Your task to perform on an android device: open app "Microsoft Outlook" (install if not already installed) Image 0: 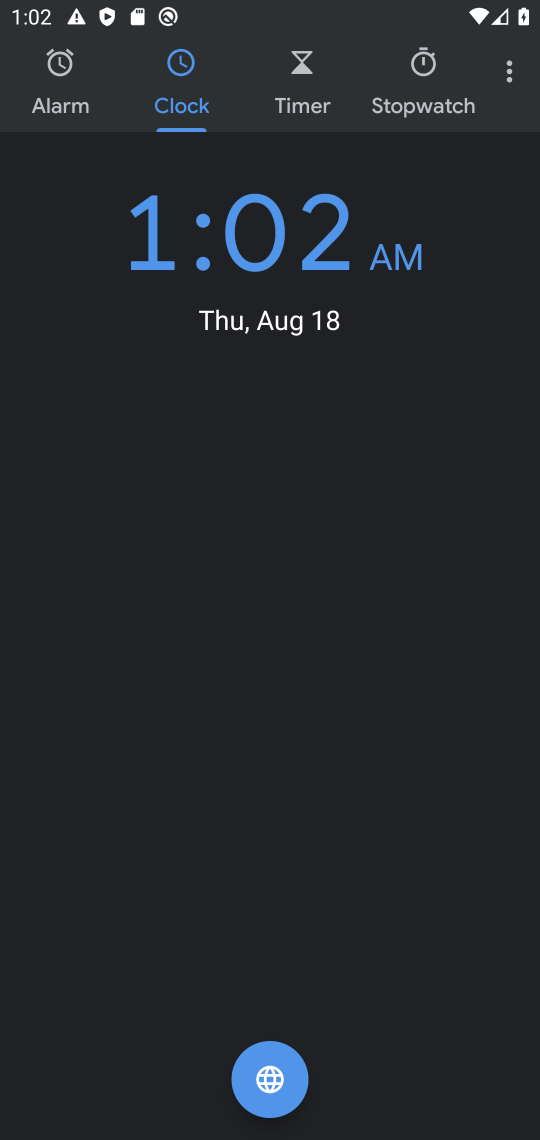
Step 0: press home button
Your task to perform on an android device: open app "Microsoft Outlook" (install if not already installed) Image 1: 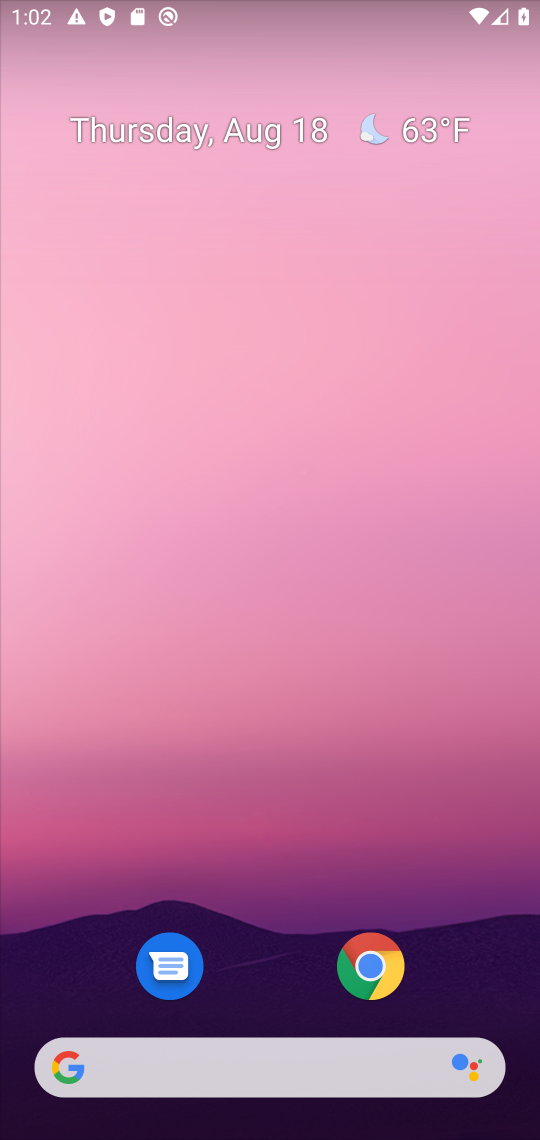
Step 1: drag from (269, 968) to (288, 169)
Your task to perform on an android device: open app "Microsoft Outlook" (install if not already installed) Image 2: 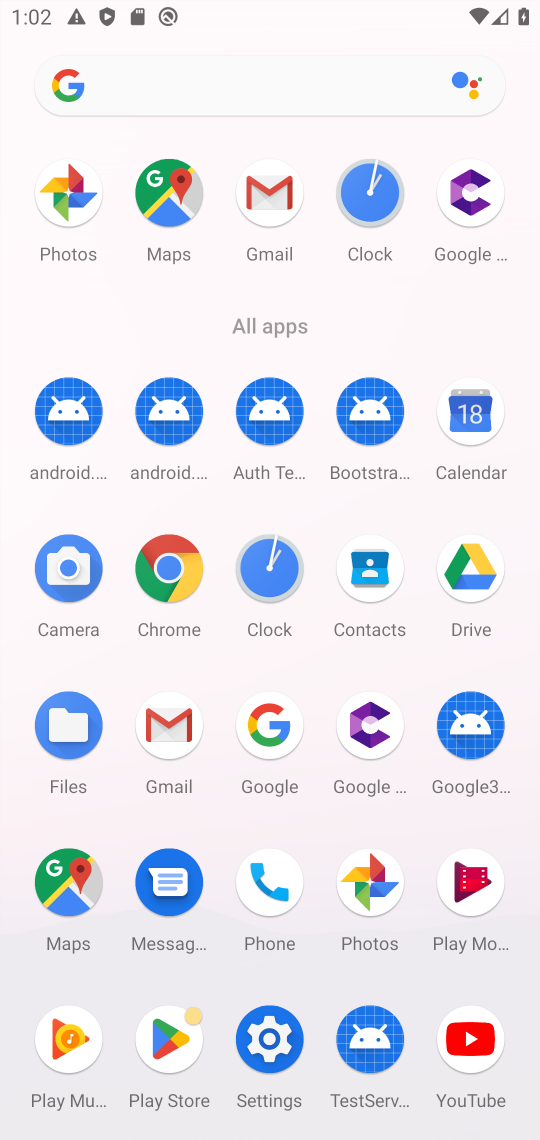
Step 2: click (164, 1027)
Your task to perform on an android device: open app "Microsoft Outlook" (install if not already installed) Image 3: 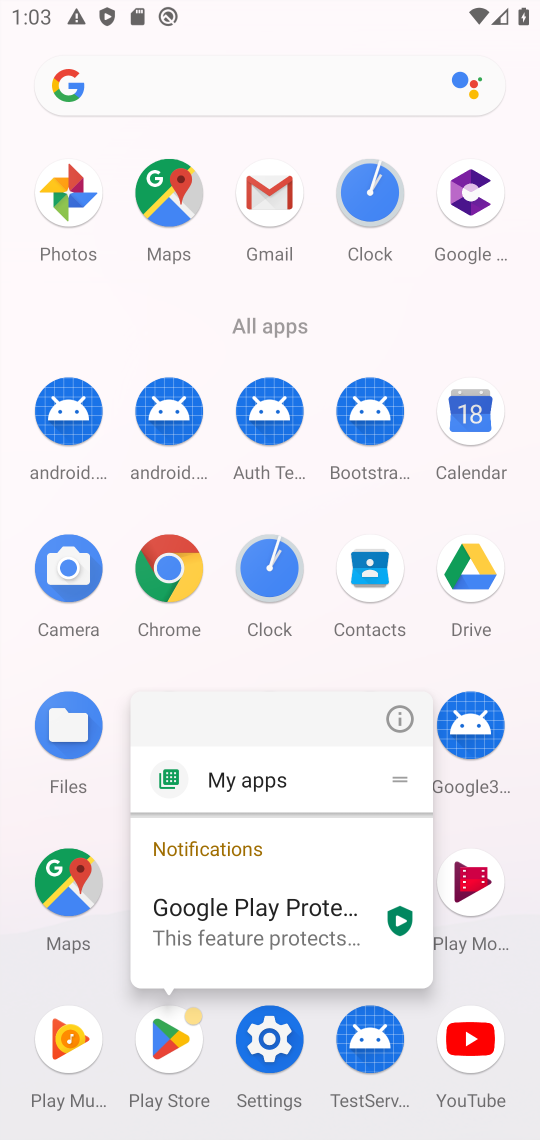
Step 3: click (162, 1041)
Your task to perform on an android device: open app "Microsoft Outlook" (install if not already installed) Image 4: 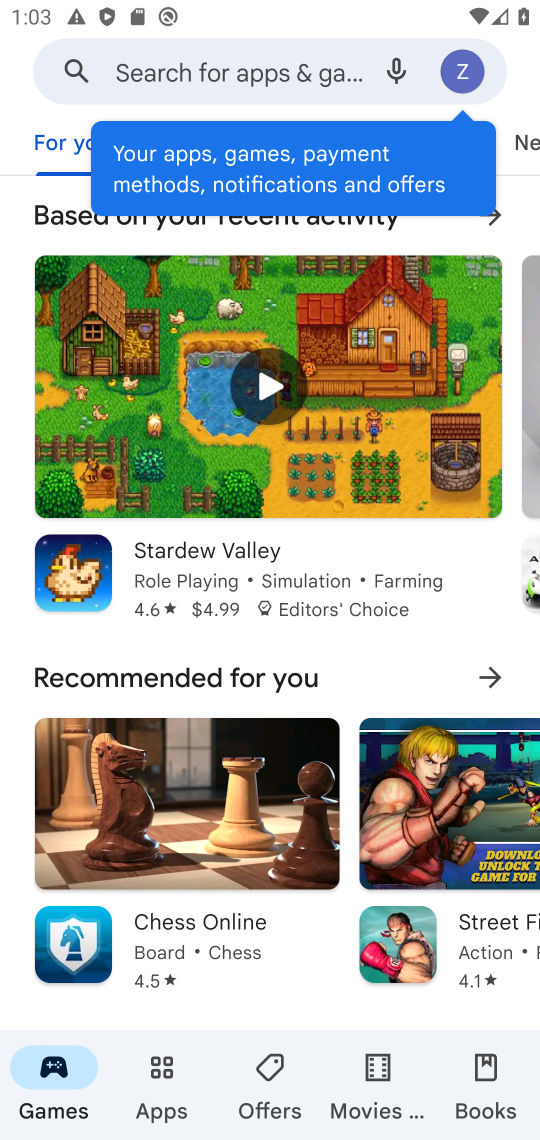
Step 4: click (148, 66)
Your task to perform on an android device: open app "Microsoft Outlook" (install if not already installed) Image 5: 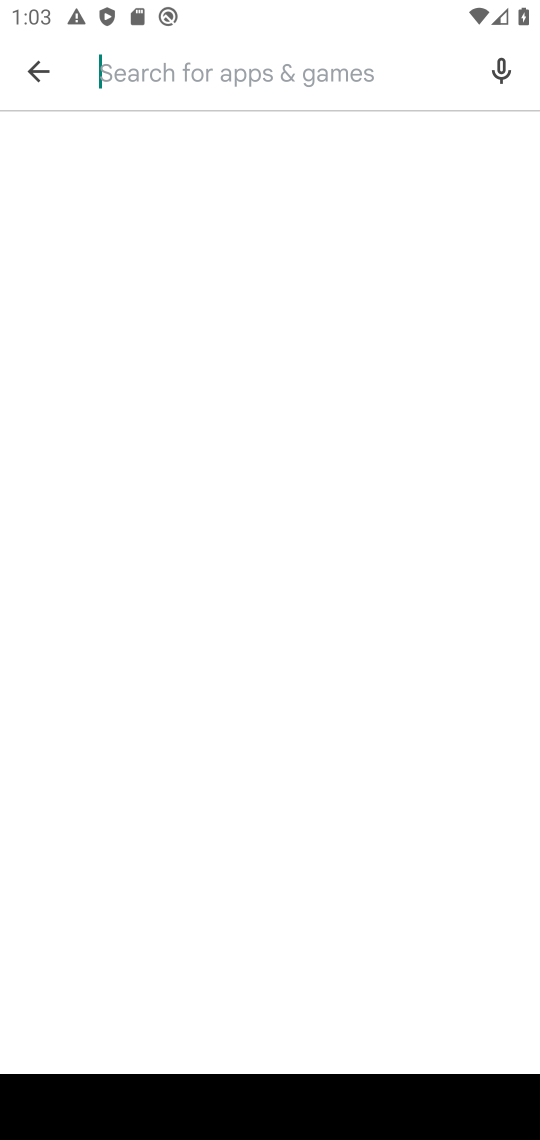
Step 5: type "Microsoft Outlook"
Your task to perform on an android device: open app "Microsoft Outlook" (install if not already installed) Image 6: 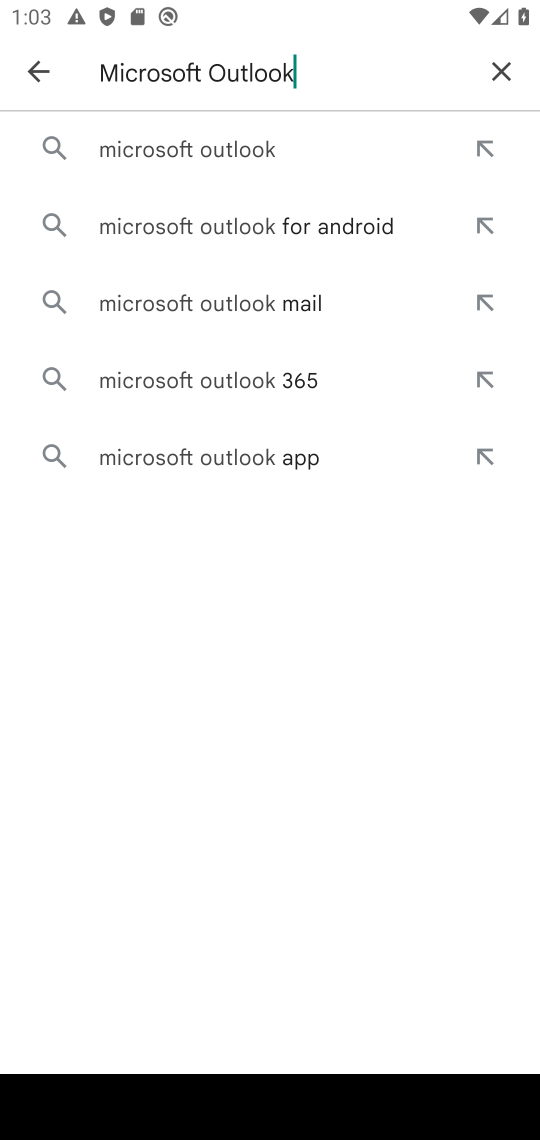
Step 6: click (249, 148)
Your task to perform on an android device: open app "Microsoft Outlook" (install if not already installed) Image 7: 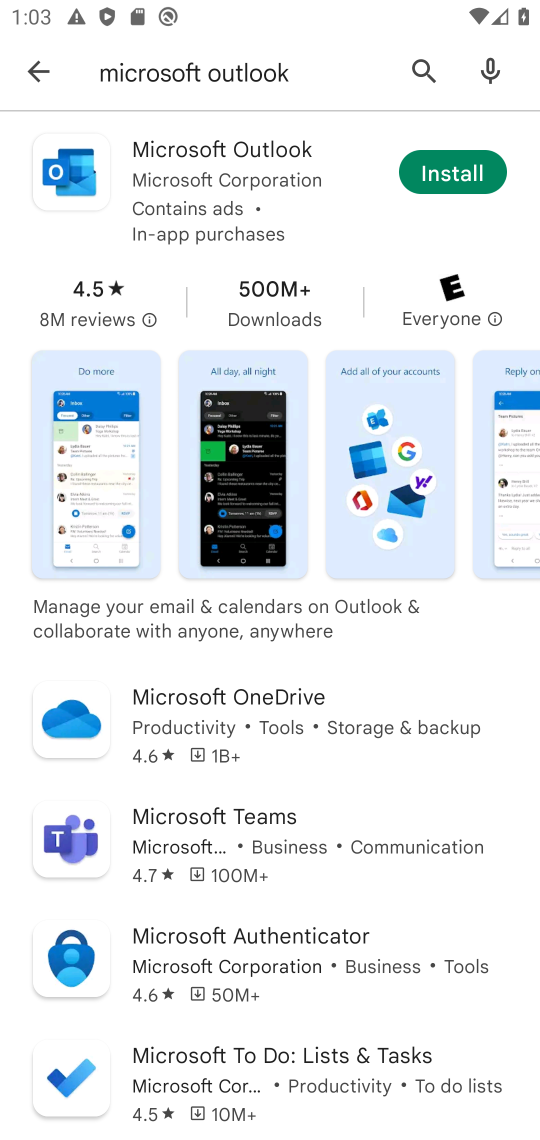
Step 7: click (453, 165)
Your task to perform on an android device: open app "Microsoft Outlook" (install if not already installed) Image 8: 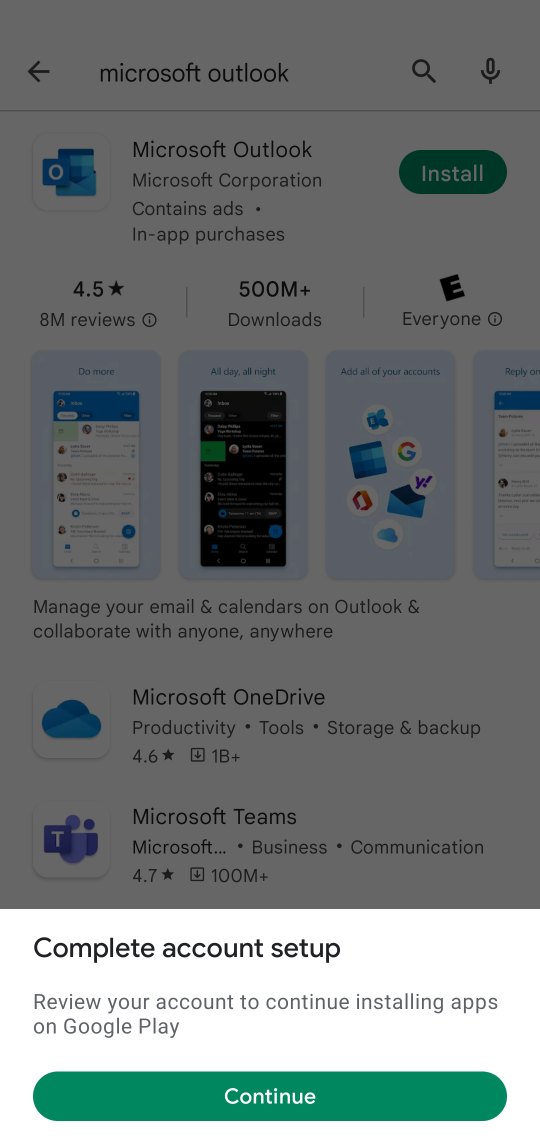
Step 8: click (277, 1105)
Your task to perform on an android device: open app "Microsoft Outlook" (install if not already installed) Image 9: 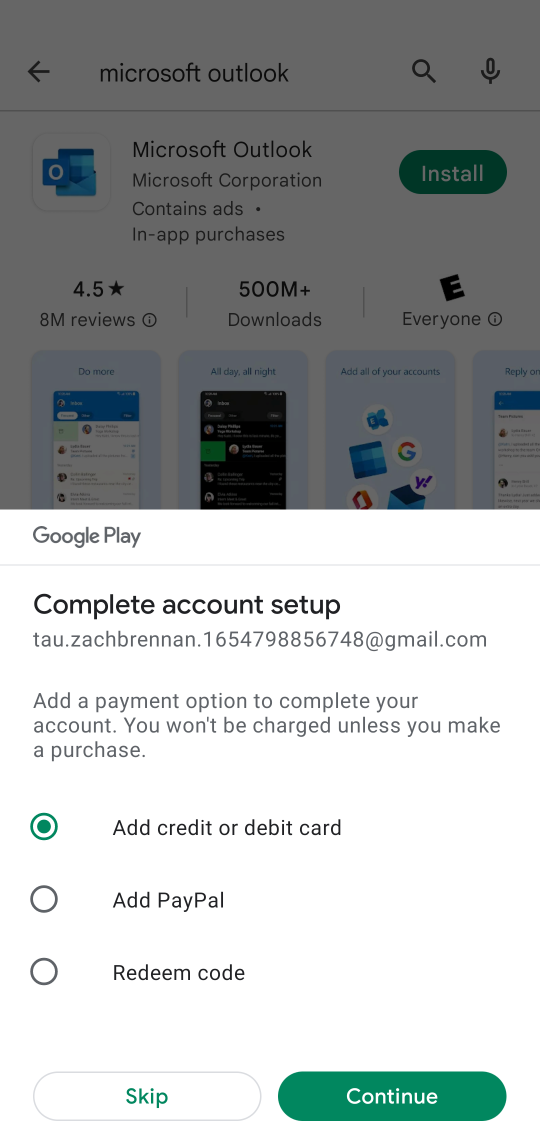
Step 9: click (149, 1097)
Your task to perform on an android device: open app "Microsoft Outlook" (install if not already installed) Image 10: 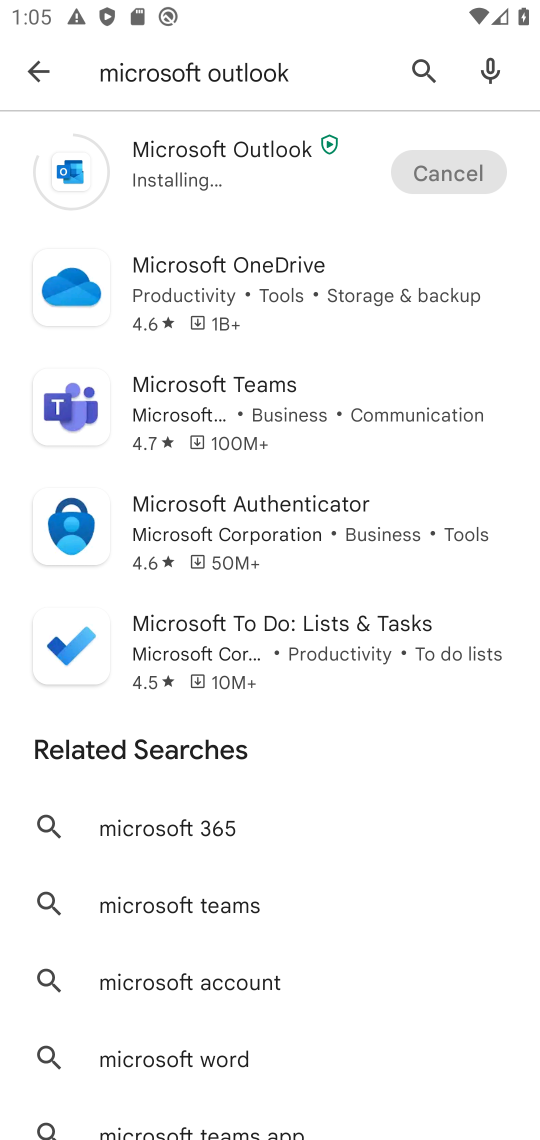
Step 10: click (227, 168)
Your task to perform on an android device: open app "Microsoft Outlook" (install if not already installed) Image 11: 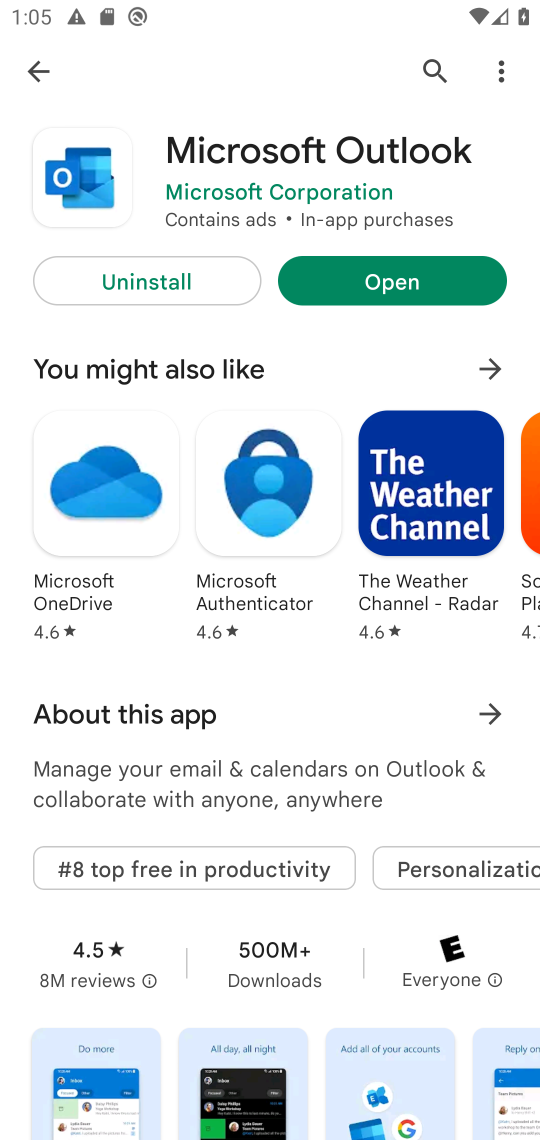
Step 11: click (392, 279)
Your task to perform on an android device: open app "Microsoft Outlook" (install if not already installed) Image 12: 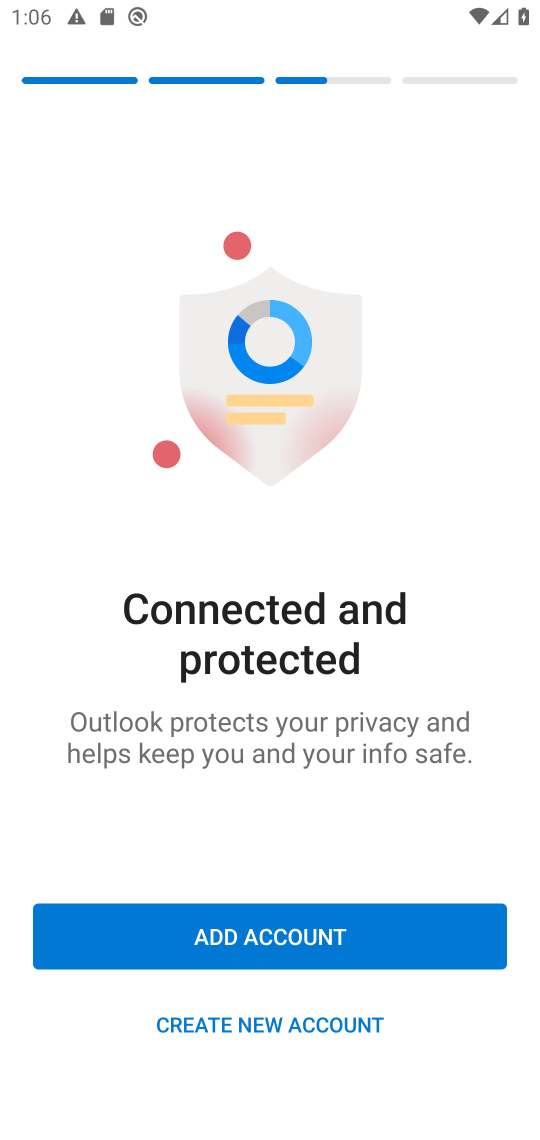
Step 12: click (263, 948)
Your task to perform on an android device: open app "Microsoft Outlook" (install if not already installed) Image 13: 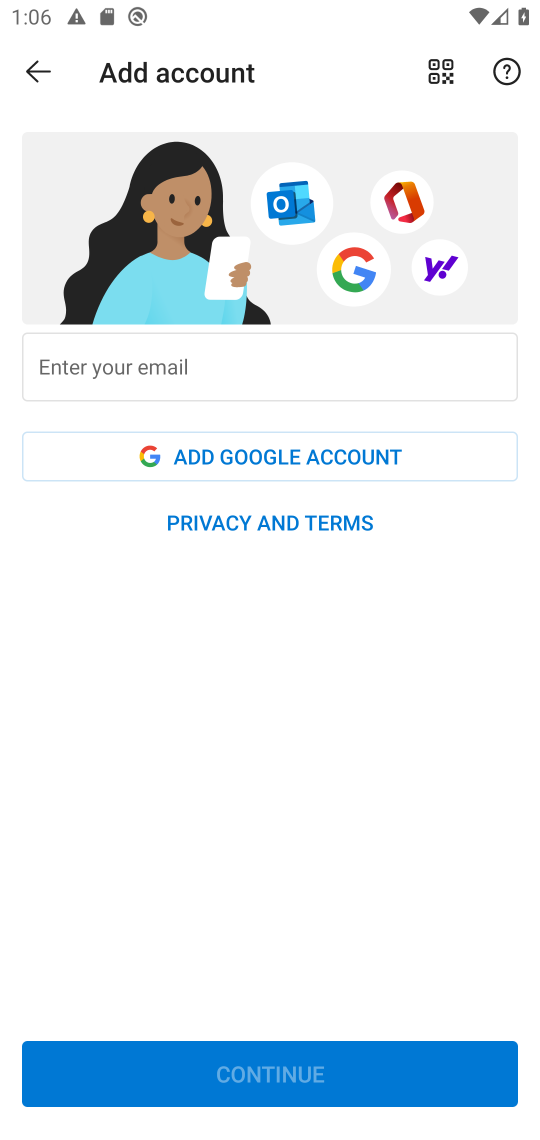
Step 13: click (253, 448)
Your task to perform on an android device: open app "Microsoft Outlook" (install if not already installed) Image 14: 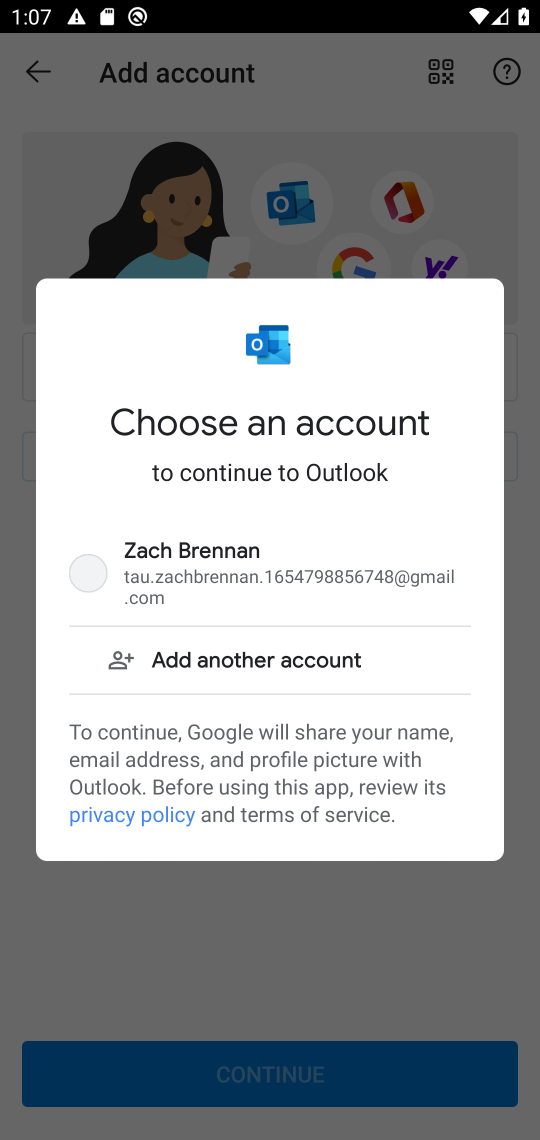
Step 14: click (230, 559)
Your task to perform on an android device: open app "Microsoft Outlook" (install if not already installed) Image 15: 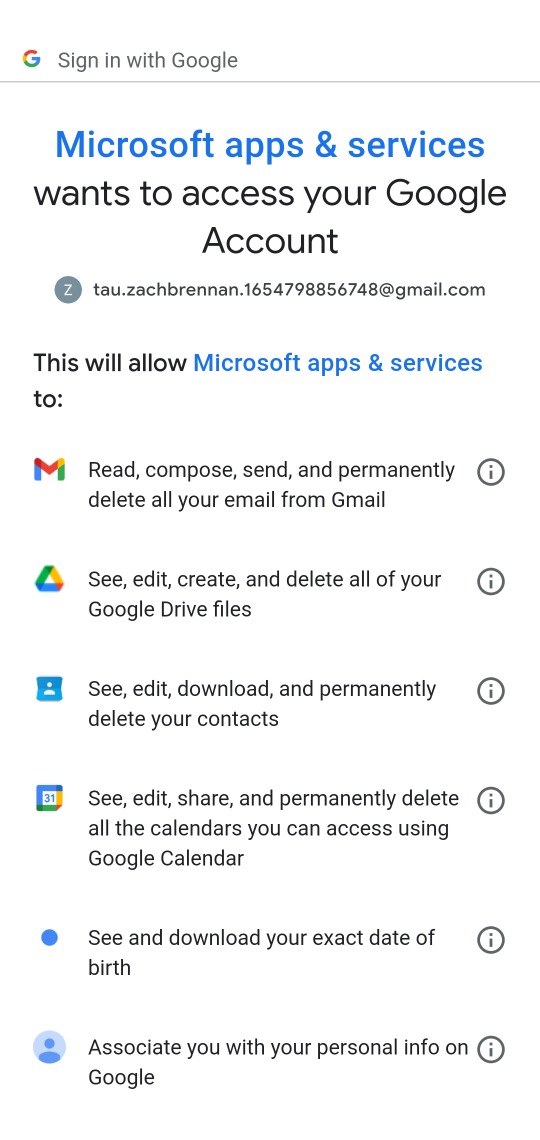
Step 15: drag from (273, 983) to (376, 310)
Your task to perform on an android device: open app "Microsoft Outlook" (install if not already installed) Image 16: 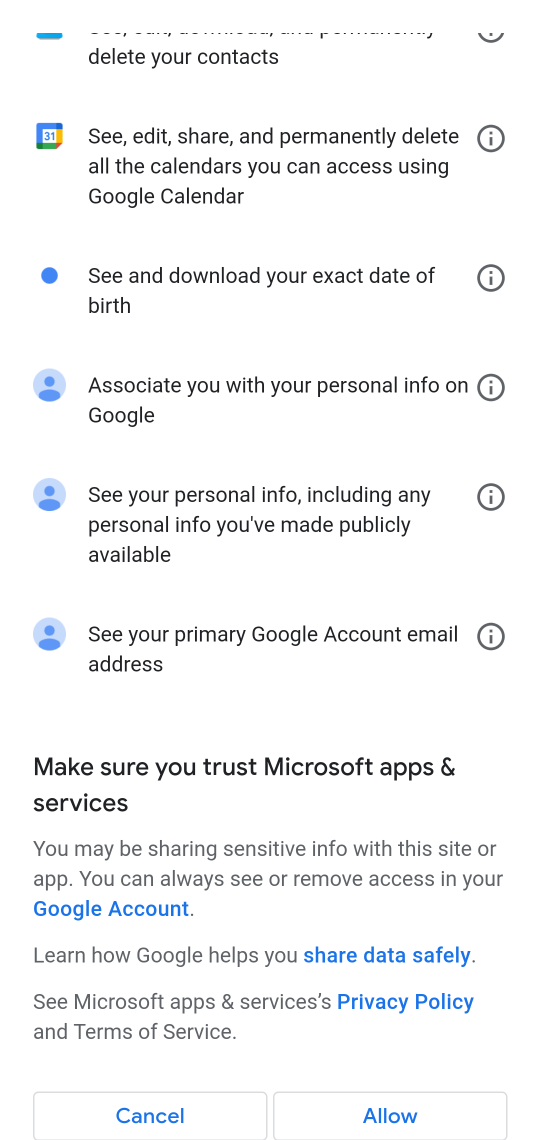
Step 16: click (361, 1107)
Your task to perform on an android device: open app "Microsoft Outlook" (install if not already installed) Image 17: 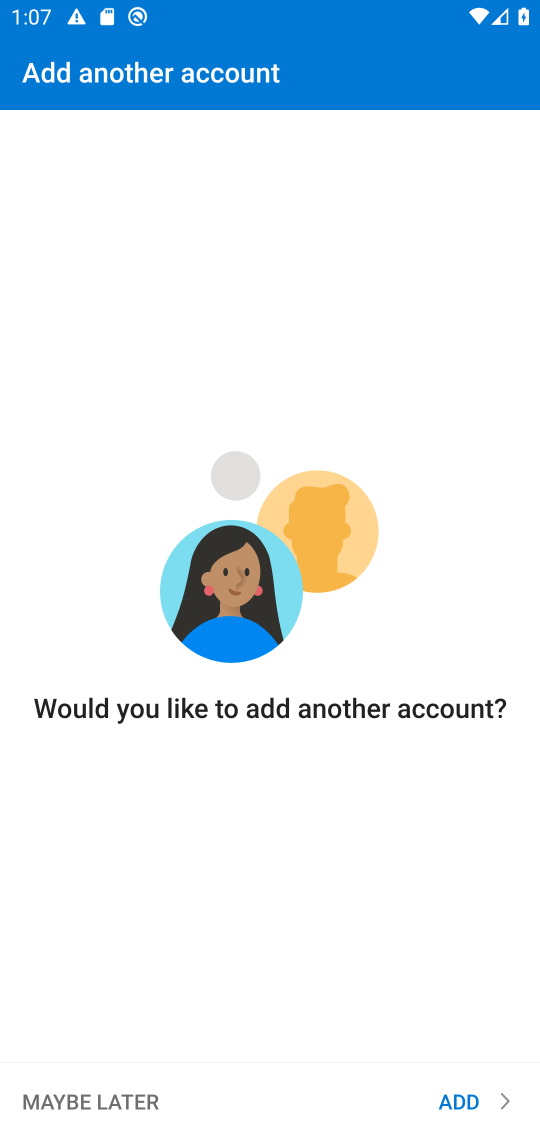
Step 17: click (442, 1087)
Your task to perform on an android device: open app "Microsoft Outlook" (install if not already installed) Image 18: 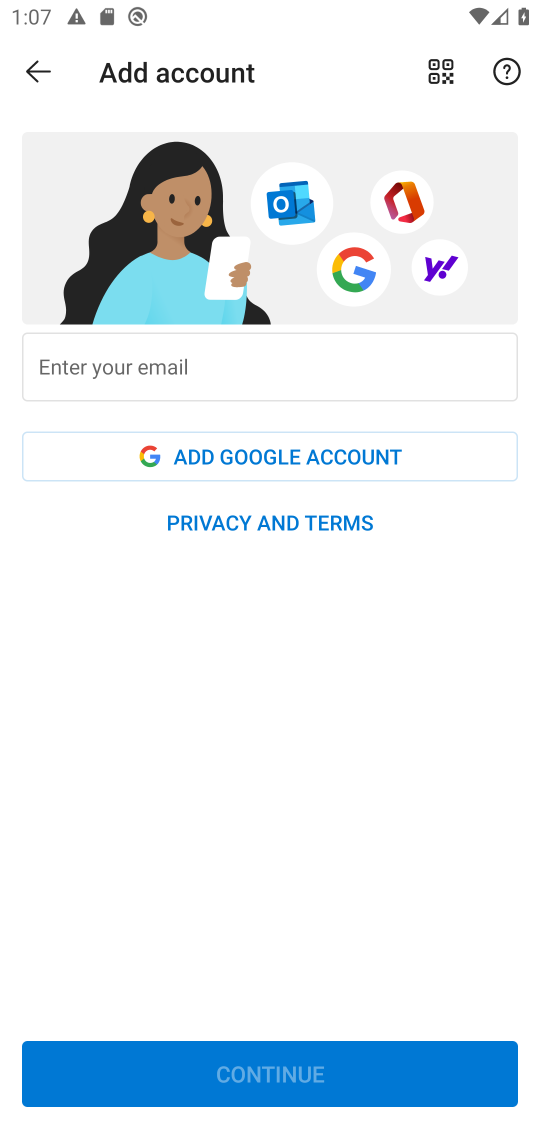
Step 18: task complete